Your task to perform on an android device: install app "Skype" Image 0: 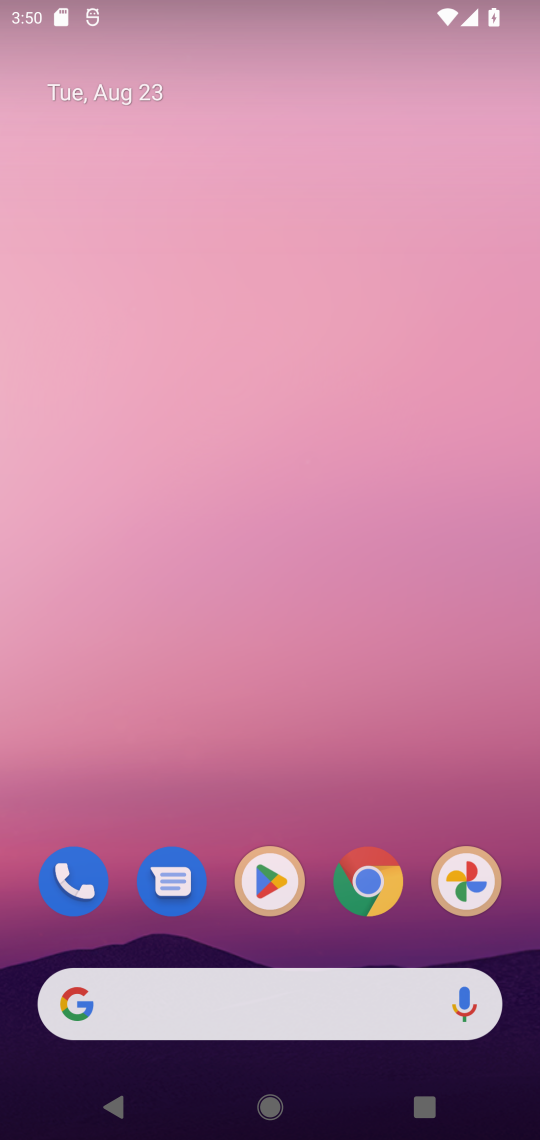
Step 0: press home button
Your task to perform on an android device: install app "Skype" Image 1: 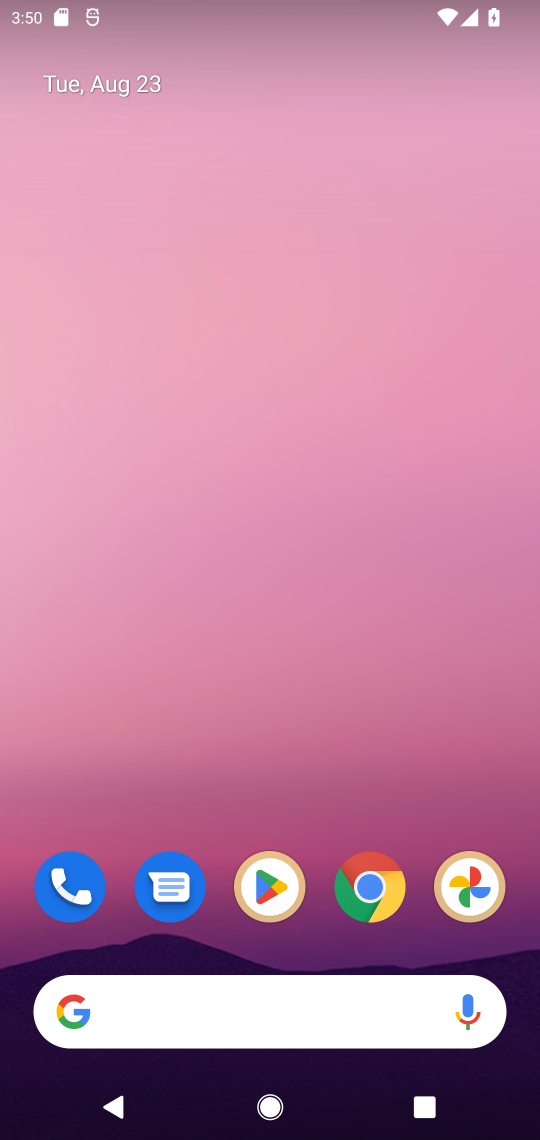
Step 1: press home button
Your task to perform on an android device: install app "Skype" Image 2: 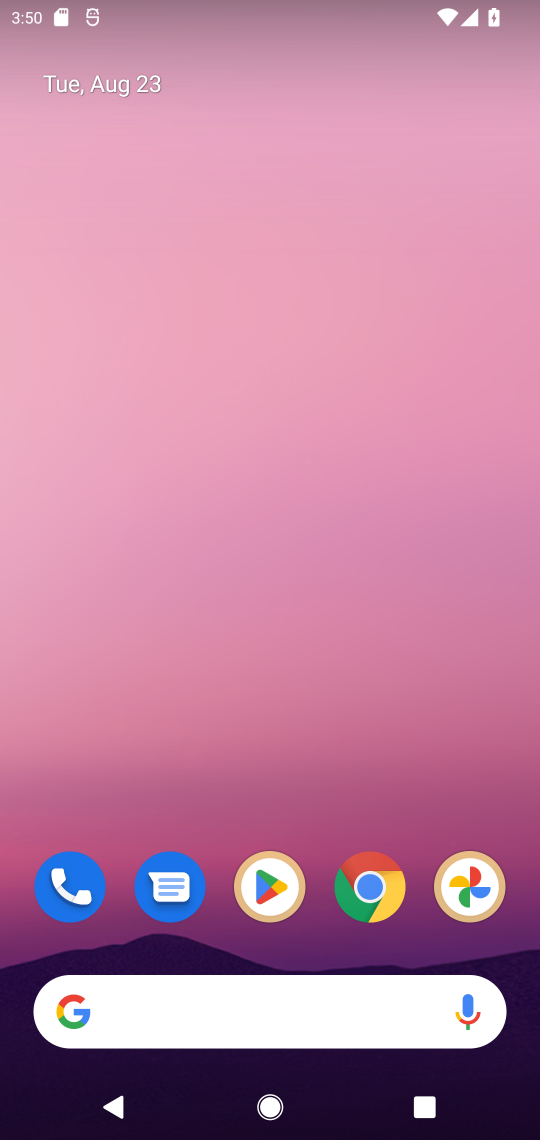
Step 2: click (274, 887)
Your task to perform on an android device: install app "Skype" Image 3: 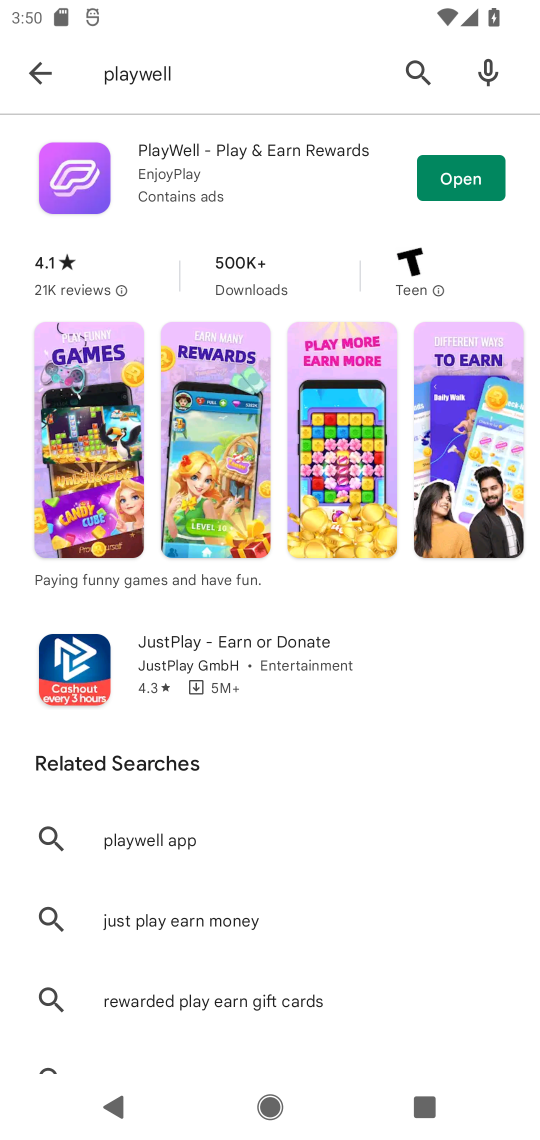
Step 3: click (37, 75)
Your task to perform on an android device: install app "Skype" Image 4: 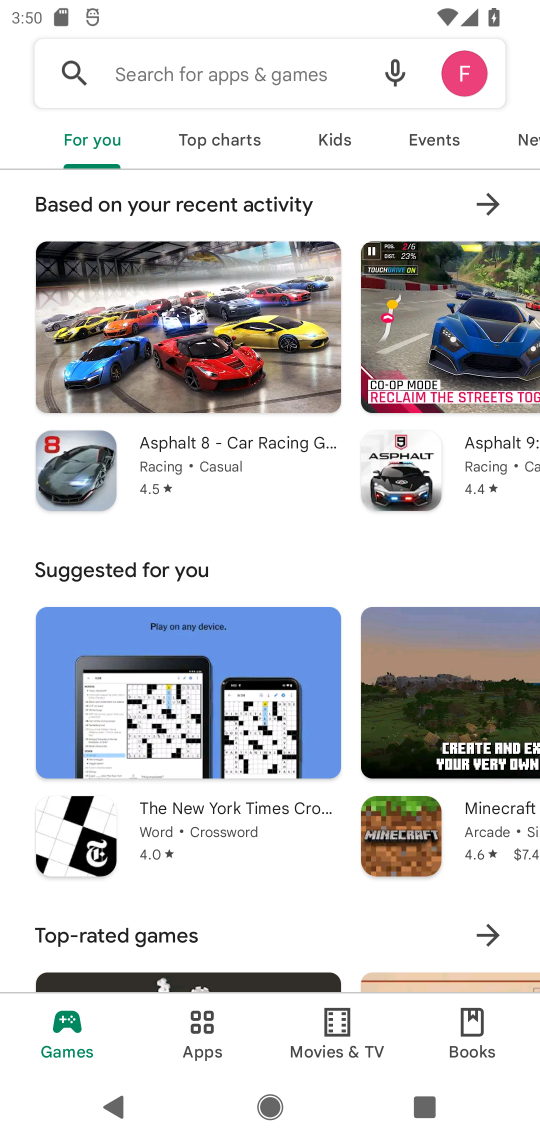
Step 4: click (167, 75)
Your task to perform on an android device: install app "Skype" Image 5: 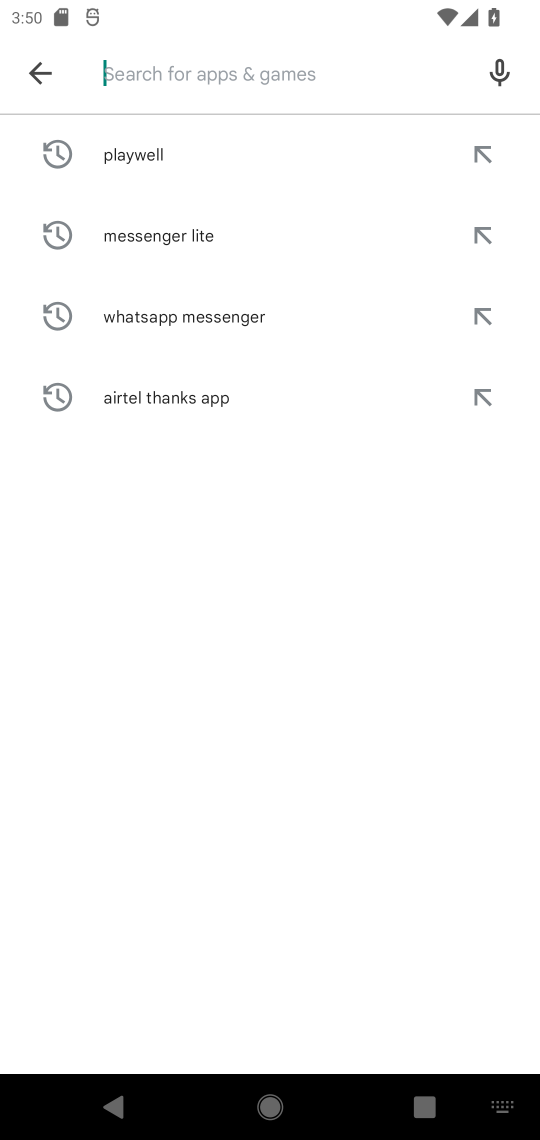
Step 5: type "Skype"
Your task to perform on an android device: install app "Skype" Image 6: 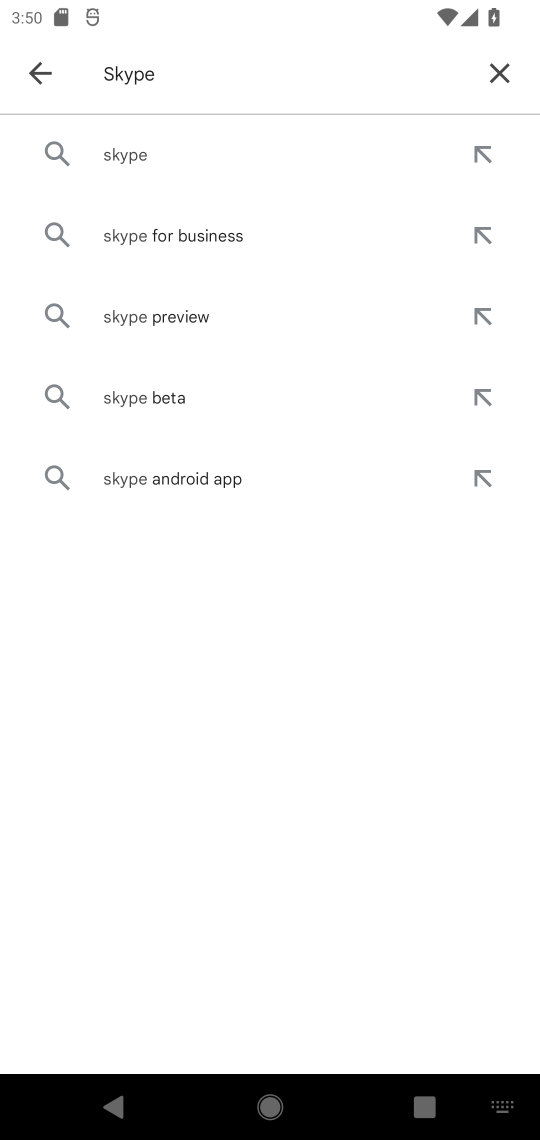
Step 6: click (109, 157)
Your task to perform on an android device: install app "Skype" Image 7: 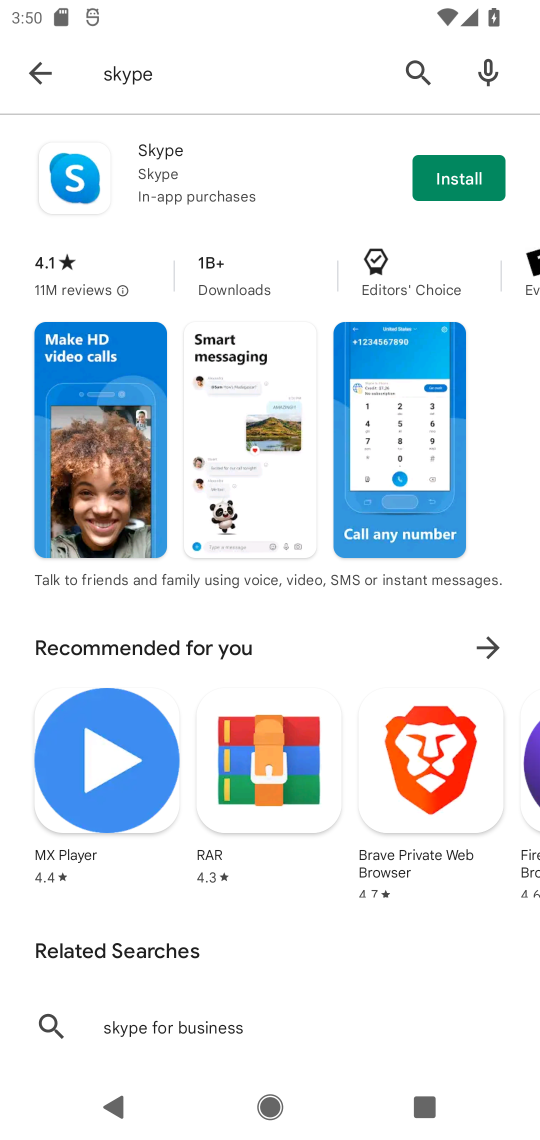
Step 7: click (446, 175)
Your task to perform on an android device: install app "Skype" Image 8: 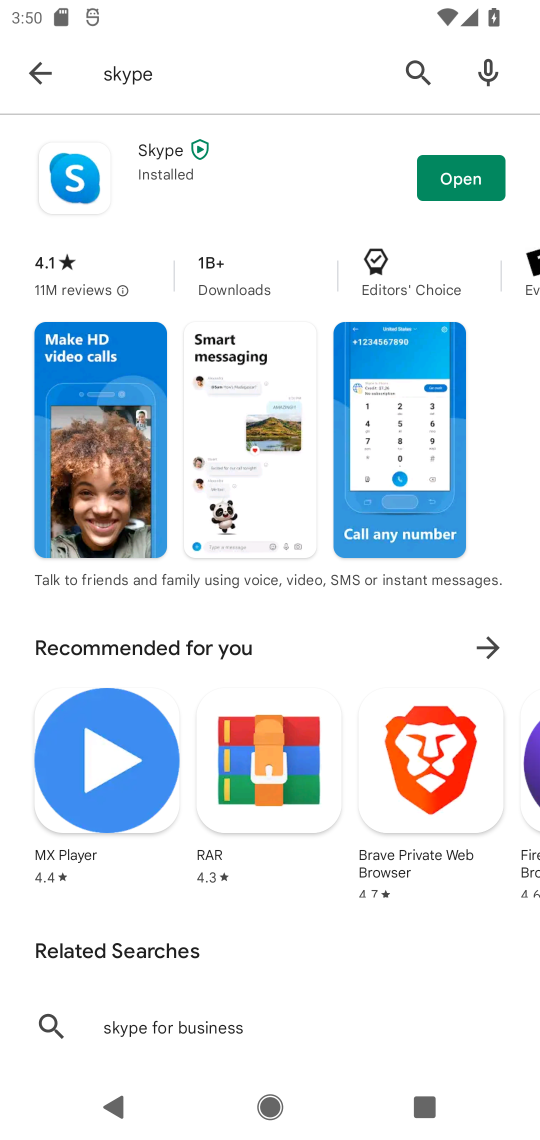
Step 8: click (458, 178)
Your task to perform on an android device: install app "Skype" Image 9: 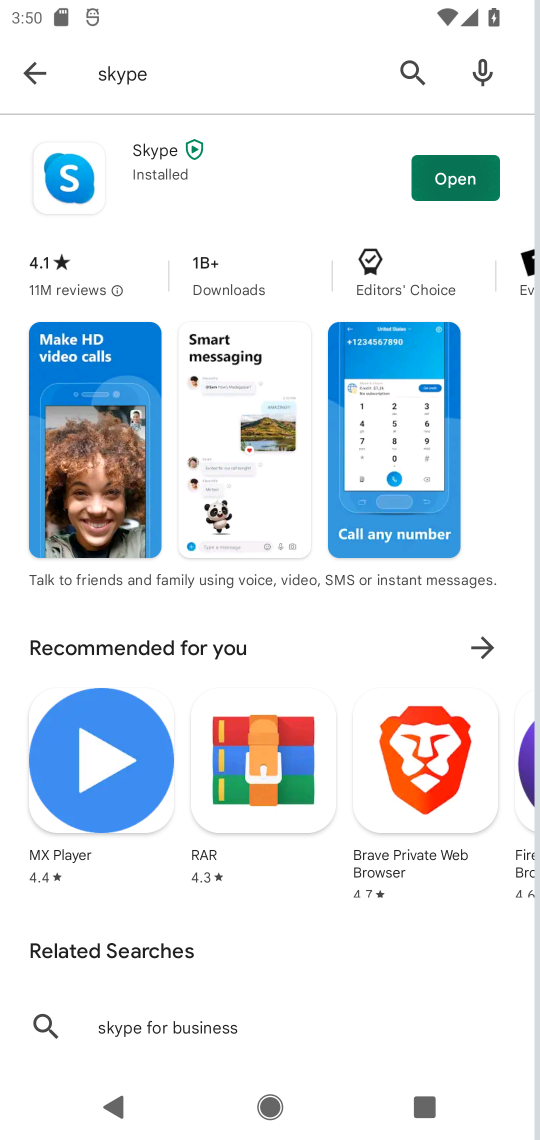
Step 9: task complete